Your task to perform on an android device: see creations saved in the google photos Image 0: 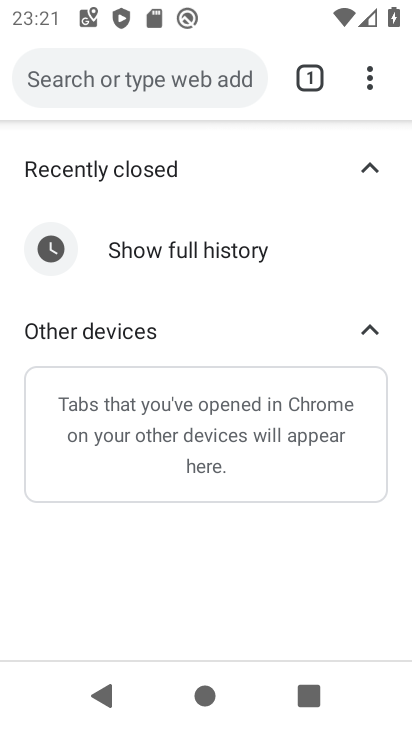
Step 0: press home button
Your task to perform on an android device: see creations saved in the google photos Image 1: 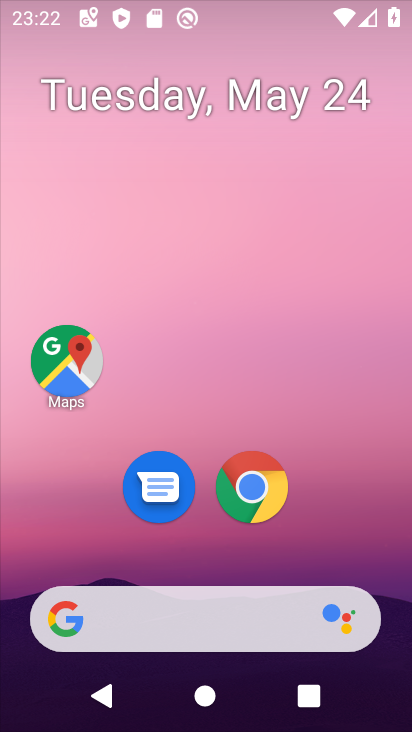
Step 1: drag from (245, 548) to (307, 26)
Your task to perform on an android device: see creations saved in the google photos Image 2: 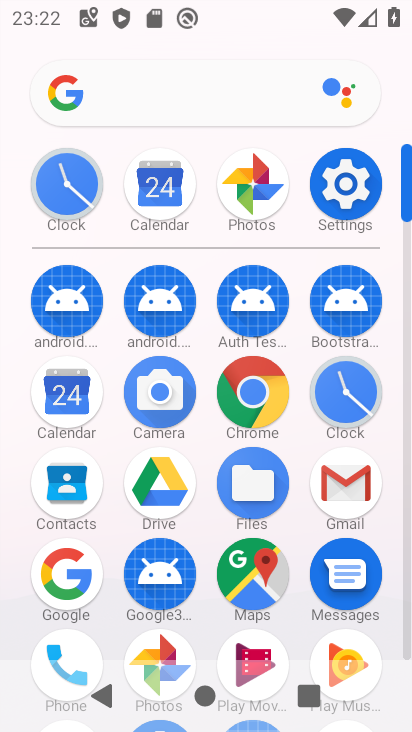
Step 2: click (150, 642)
Your task to perform on an android device: see creations saved in the google photos Image 3: 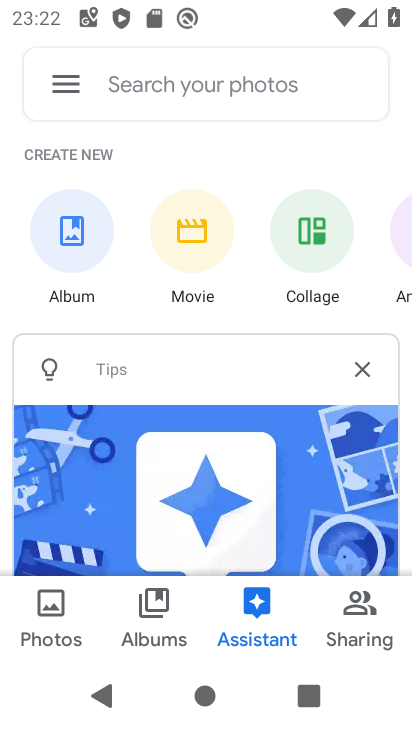
Step 3: click (64, 70)
Your task to perform on an android device: see creations saved in the google photos Image 4: 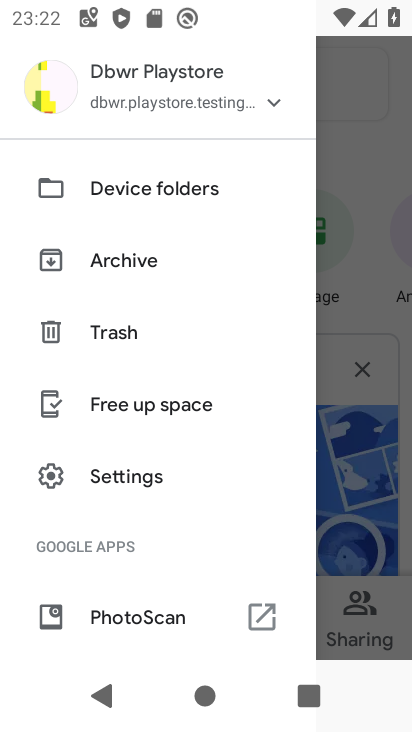
Step 4: click (141, 257)
Your task to perform on an android device: see creations saved in the google photos Image 5: 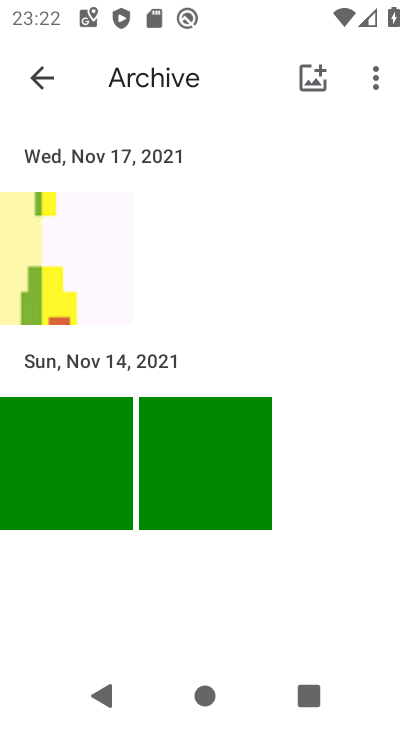
Step 5: task complete